Your task to perform on an android device: check data usage Image 0: 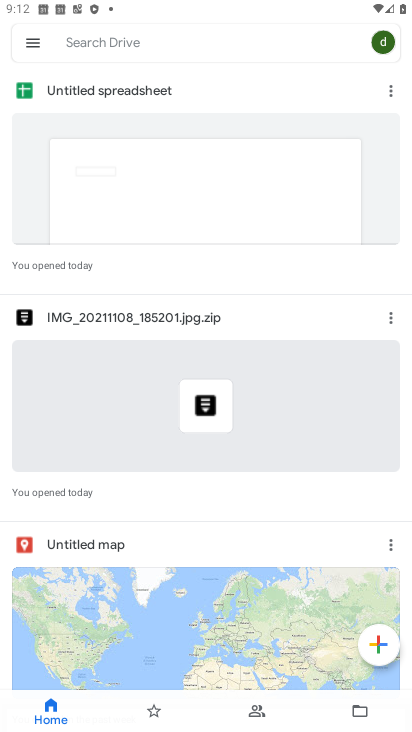
Step 0: press home button
Your task to perform on an android device: check data usage Image 1: 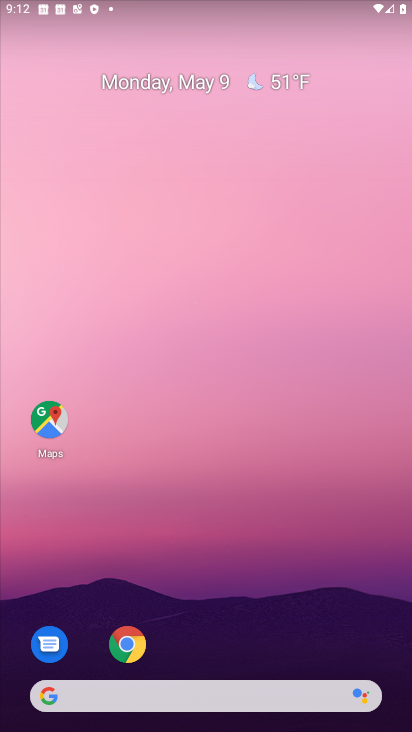
Step 1: drag from (220, 682) to (97, 21)
Your task to perform on an android device: check data usage Image 2: 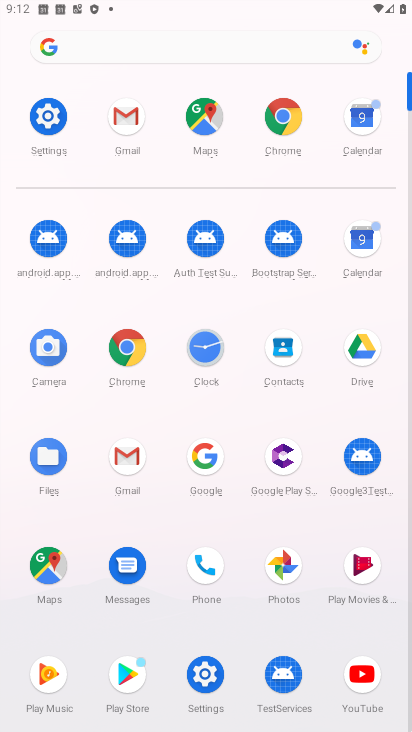
Step 2: click (54, 121)
Your task to perform on an android device: check data usage Image 3: 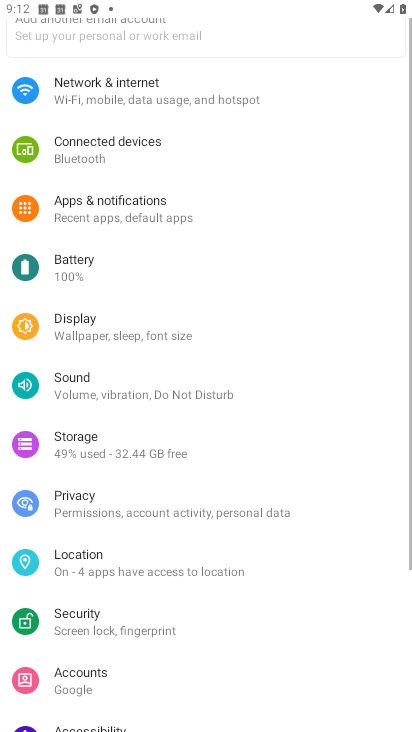
Step 3: drag from (99, 133) to (112, 729)
Your task to perform on an android device: check data usage Image 4: 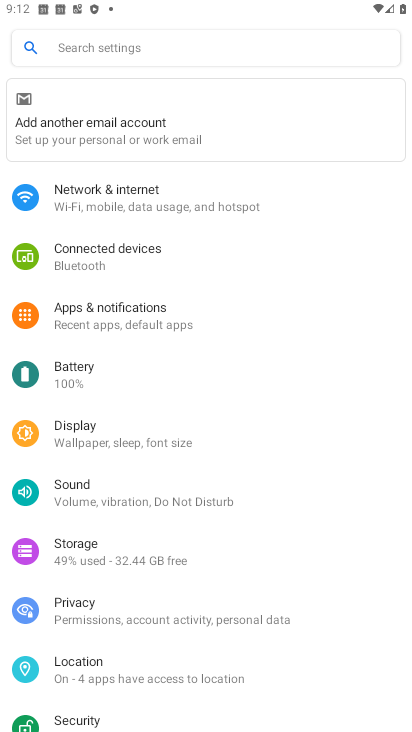
Step 4: click (110, 216)
Your task to perform on an android device: check data usage Image 5: 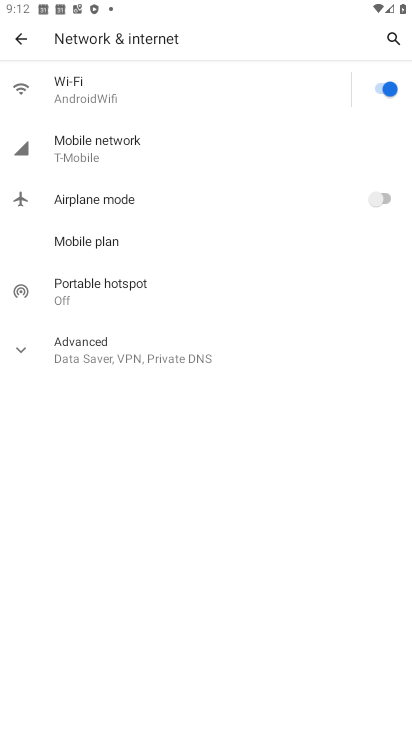
Step 5: click (127, 354)
Your task to perform on an android device: check data usage Image 6: 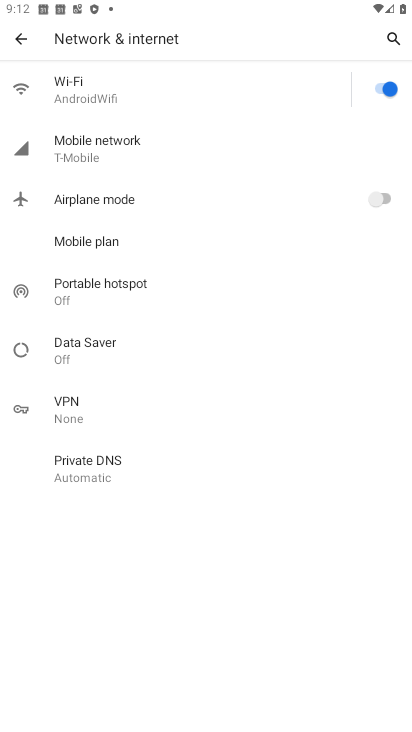
Step 6: click (127, 167)
Your task to perform on an android device: check data usage Image 7: 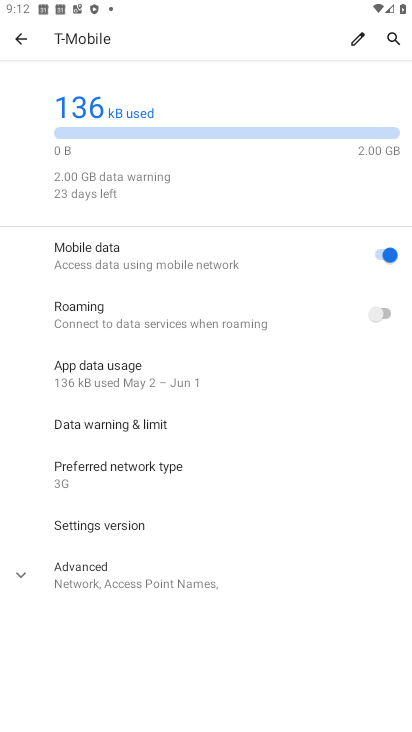
Step 7: click (178, 368)
Your task to perform on an android device: check data usage Image 8: 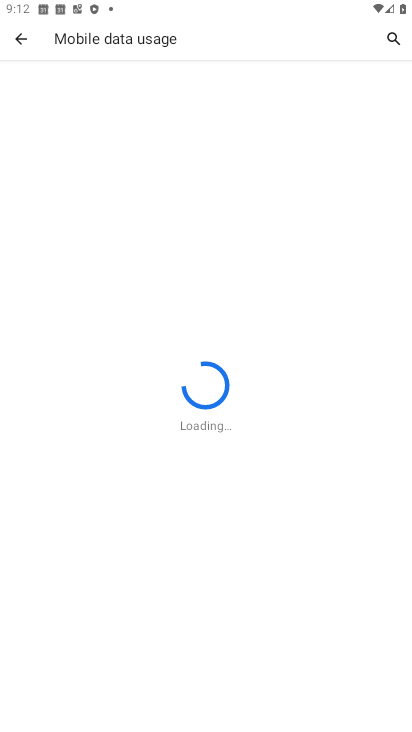
Step 8: task complete